Your task to perform on an android device: Go to sound settings Image 0: 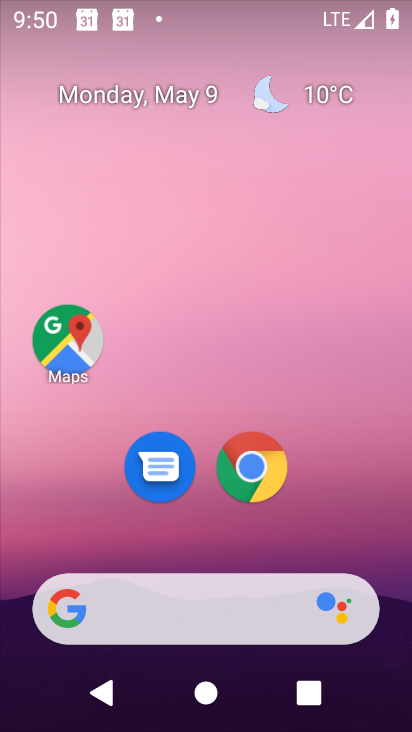
Step 0: drag from (298, 526) to (371, 2)
Your task to perform on an android device: Go to sound settings Image 1: 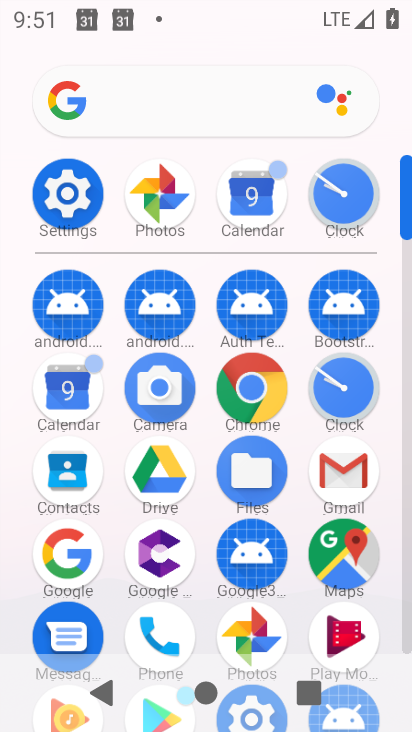
Step 1: click (72, 195)
Your task to perform on an android device: Go to sound settings Image 2: 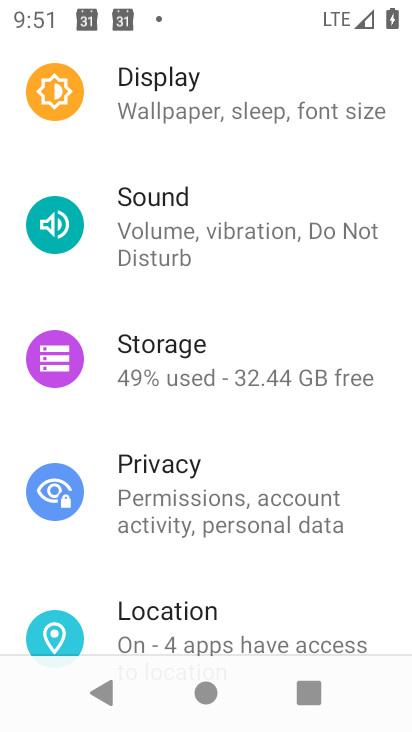
Step 2: click (200, 225)
Your task to perform on an android device: Go to sound settings Image 3: 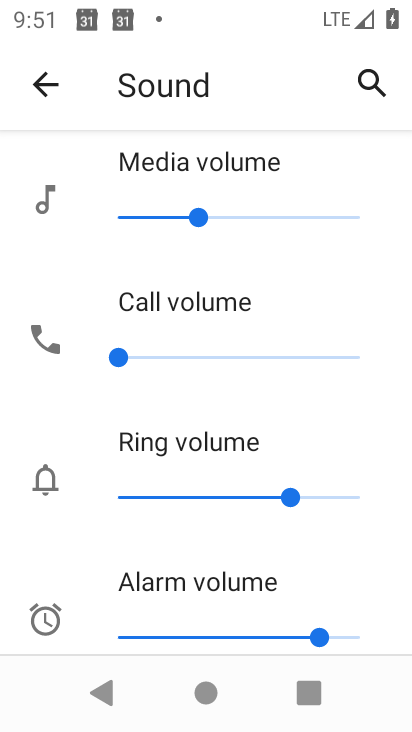
Step 3: task complete